Your task to perform on an android device: Open the map Image 0: 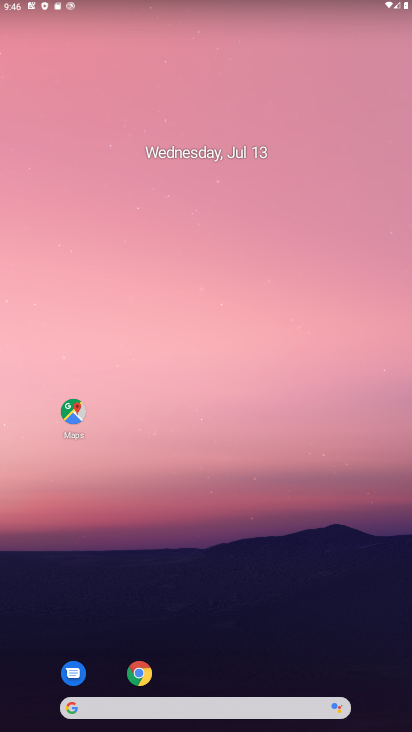
Step 0: click (78, 409)
Your task to perform on an android device: Open the map Image 1: 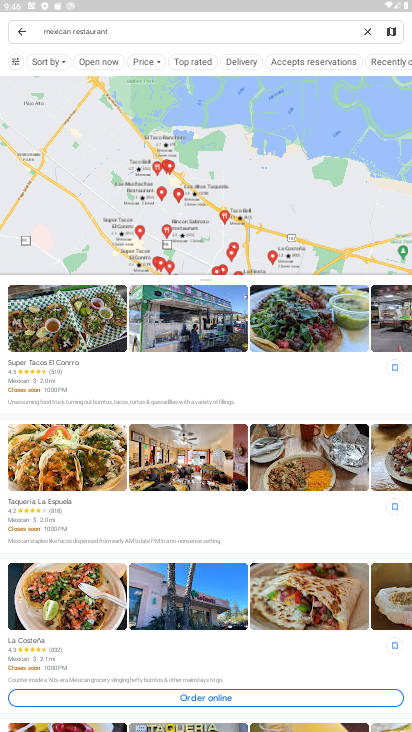
Step 1: task complete